Your task to perform on an android device: turn on notifications settings in the gmail app Image 0: 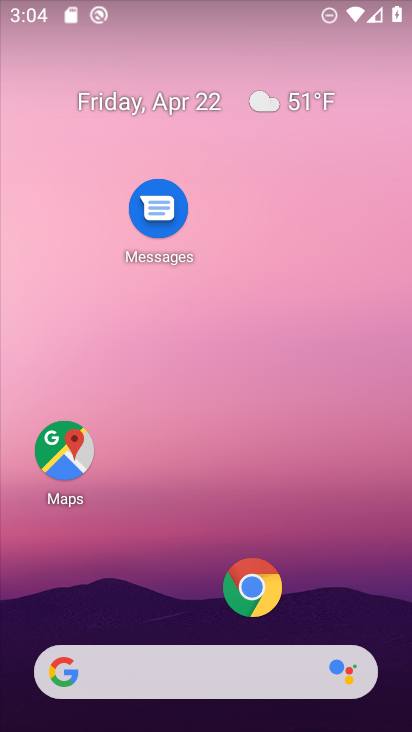
Step 0: drag from (228, 483) to (241, 217)
Your task to perform on an android device: turn on notifications settings in the gmail app Image 1: 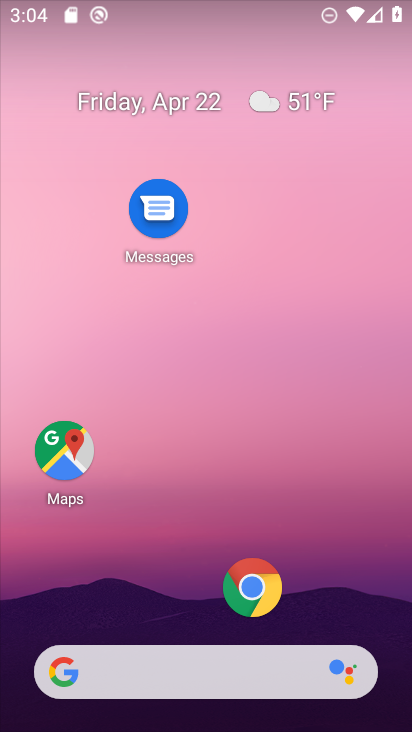
Step 1: drag from (202, 620) to (250, 216)
Your task to perform on an android device: turn on notifications settings in the gmail app Image 2: 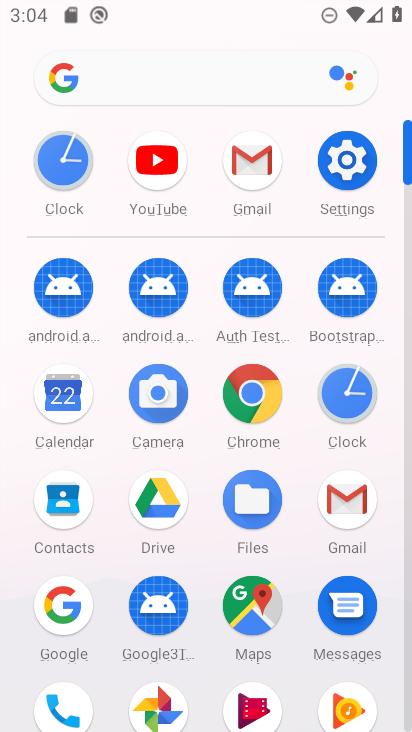
Step 2: click (238, 161)
Your task to perform on an android device: turn on notifications settings in the gmail app Image 3: 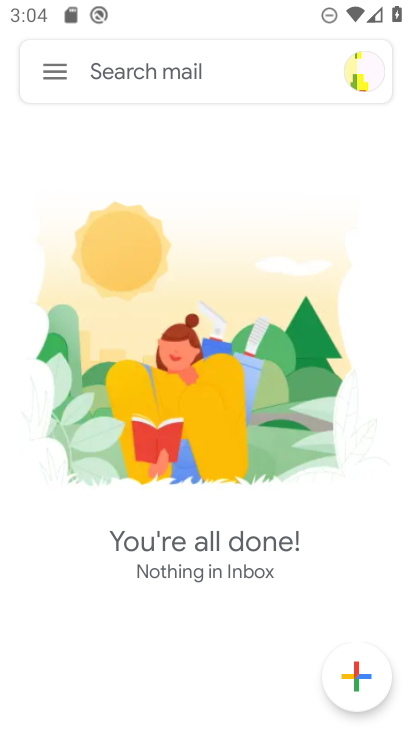
Step 3: click (62, 75)
Your task to perform on an android device: turn on notifications settings in the gmail app Image 4: 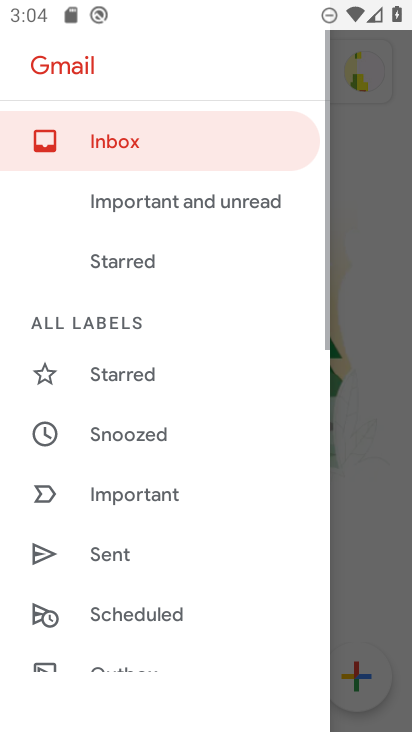
Step 4: drag from (144, 609) to (228, 276)
Your task to perform on an android device: turn on notifications settings in the gmail app Image 5: 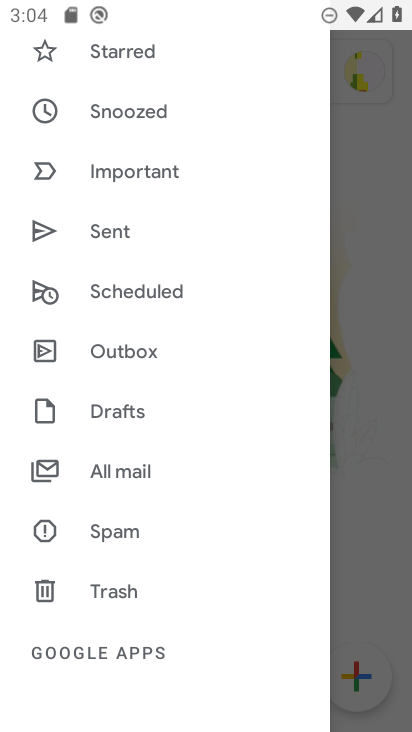
Step 5: drag from (197, 591) to (245, 309)
Your task to perform on an android device: turn on notifications settings in the gmail app Image 6: 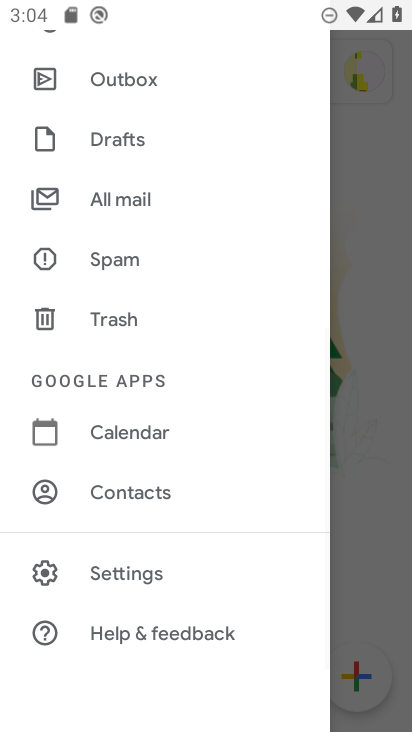
Step 6: click (147, 565)
Your task to perform on an android device: turn on notifications settings in the gmail app Image 7: 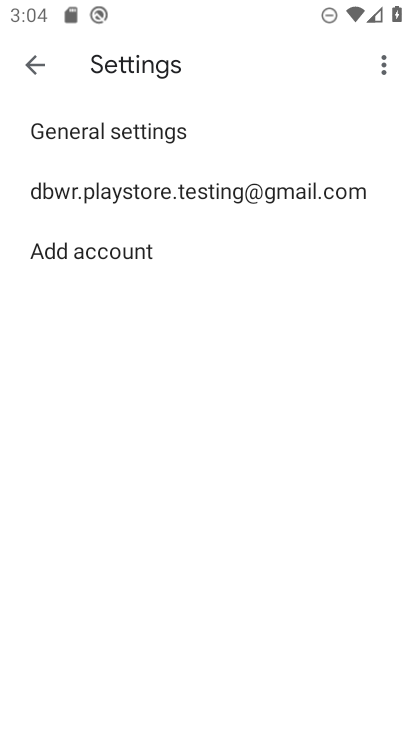
Step 7: click (211, 194)
Your task to perform on an android device: turn on notifications settings in the gmail app Image 8: 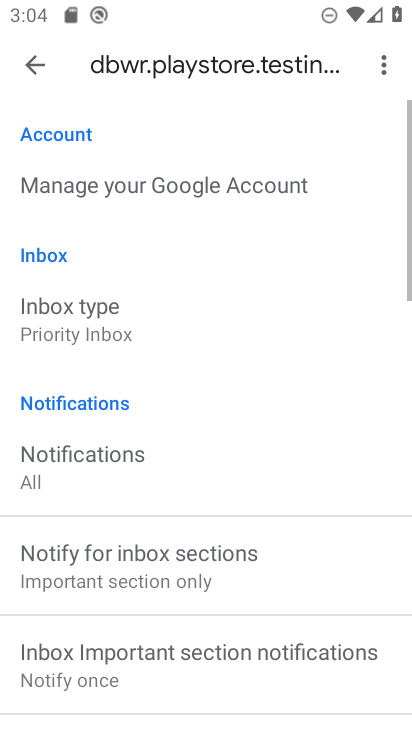
Step 8: drag from (201, 529) to (220, 373)
Your task to perform on an android device: turn on notifications settings in the gmail app Image 9: 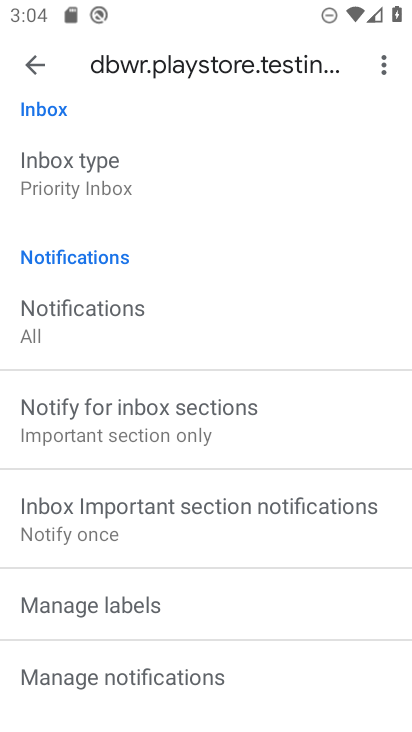
Step 9: click (164, 663)
Your task to perform on an android device: turn on notifications settings in the gmail app Image 10: 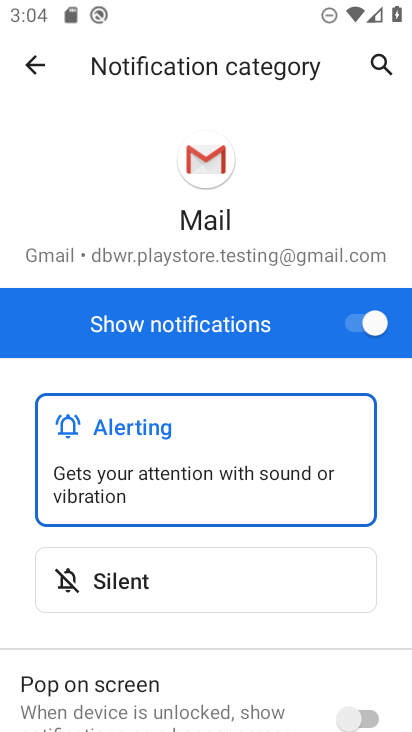
Step 10: task complete